Your task to perform on an android device: Go to eBay Image 0: 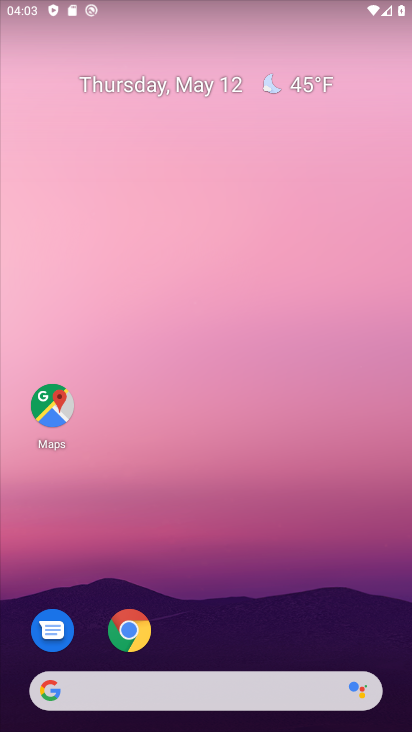
Step 0: drag from (205, 638) to (205, 221)
Your task to perform on an android device: Go to eBay Image 1: 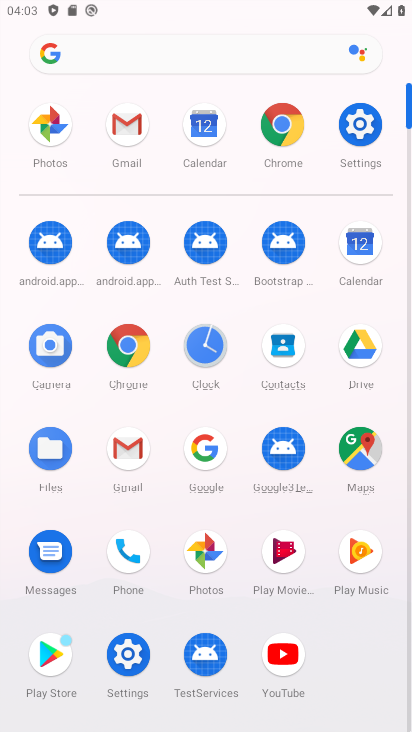
Step 1: click (293, 160)
Your task to perform on an android device: Go to eBay Image 2: 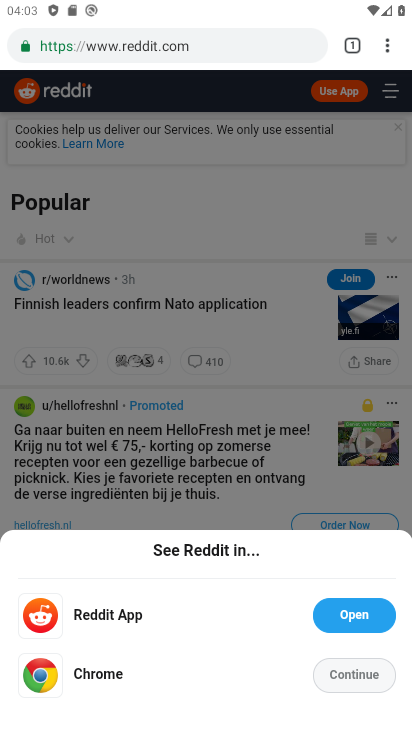
Step 2: click (221, 59)
Your task to perform on an android device: Go to eBay Image 3: 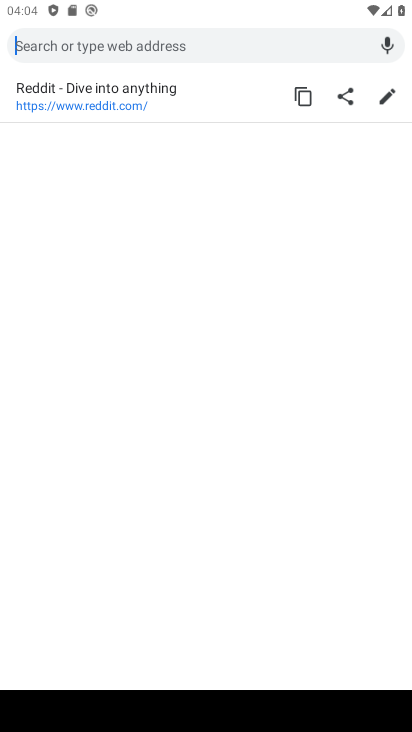
Step 3: type "eBay"
Your task to perform on an android device: Go to eBay Image 4: 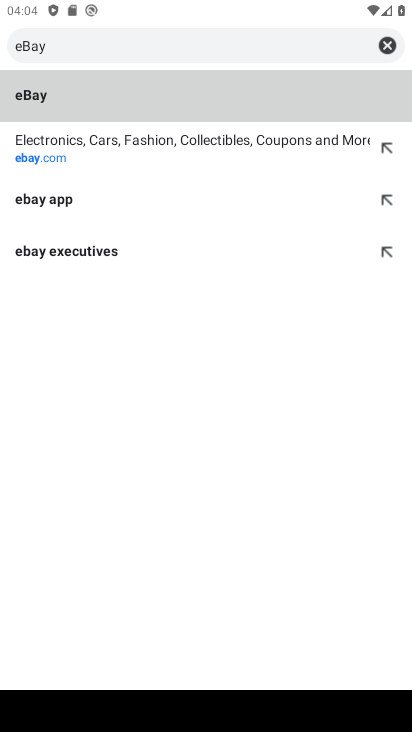
Step 4: click (75, 107)
Your task to perform on an android device: Go to eBay Image 5: 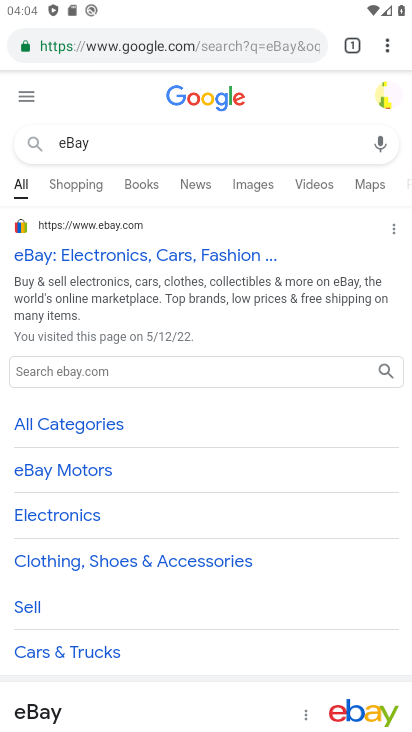
Step 5: task complete